Your task to perform on an android device: add a contact in the contacts app Image 0: 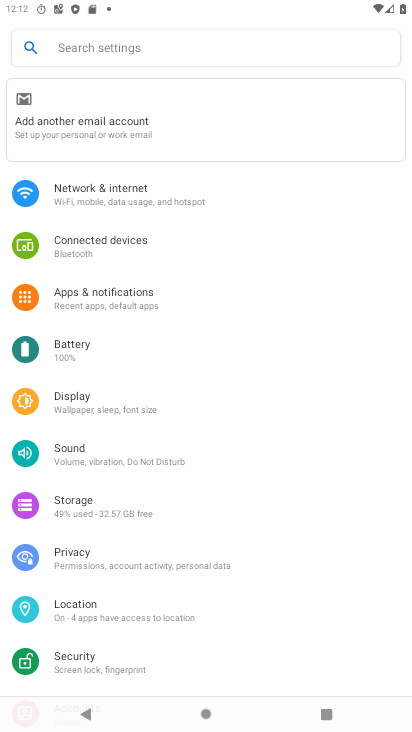
Step 0: press home button
Your task to perform on an android device: add a contact in the contacts app Image 1: 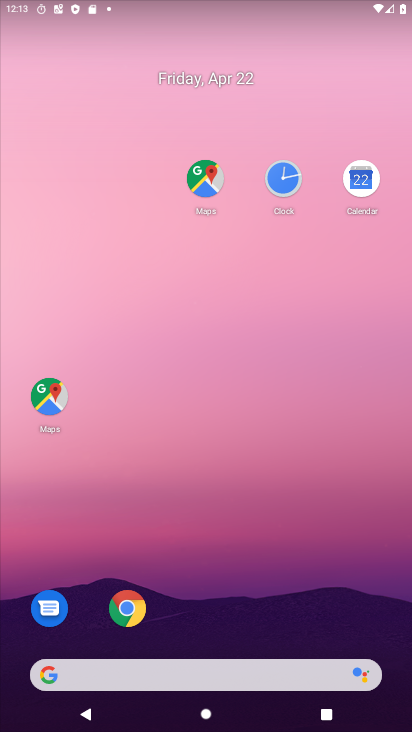
Step 1: drag from (273, 583) to (229, 44)
Your task to perform on an android device: add a contact in the contacts app Image 2: 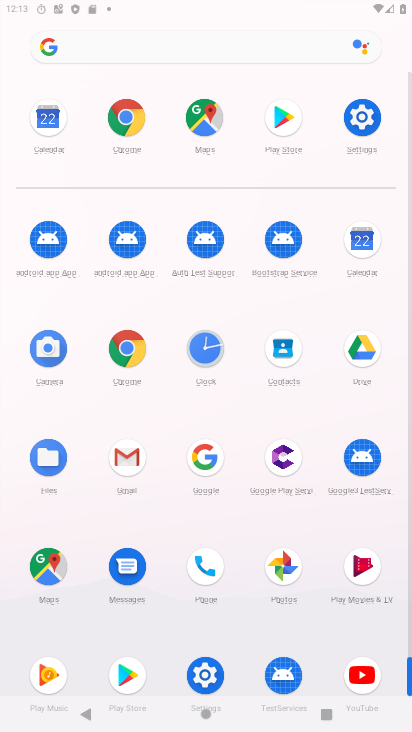
Step 2: drag from (225, 399) to (169, 48)
Your task to perform on an android device: add a contact in the contacts app Image 3: 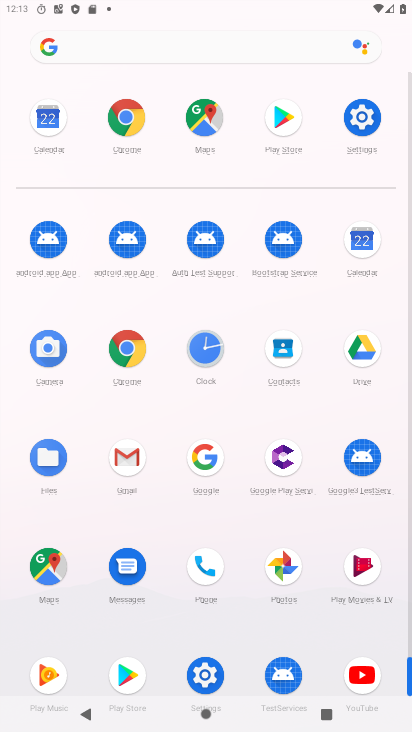
Step 3: click (282, 350)
Your task to perform on an android device: add a contact in the contacts app Image 4: 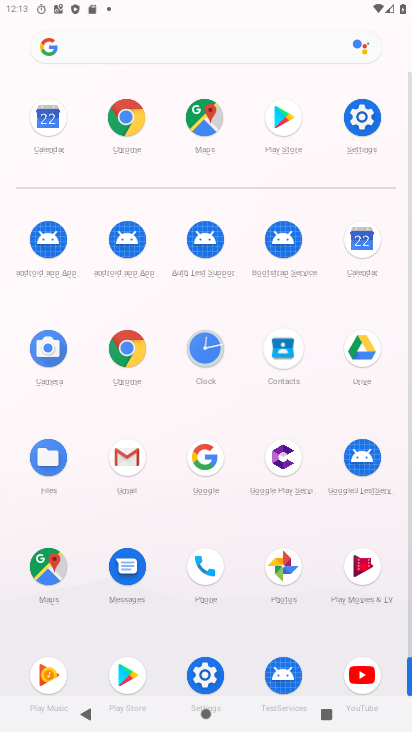
Step 4: click (284, 350)
Your task to perform on an android device: add a contact in the contacts app Image 5: 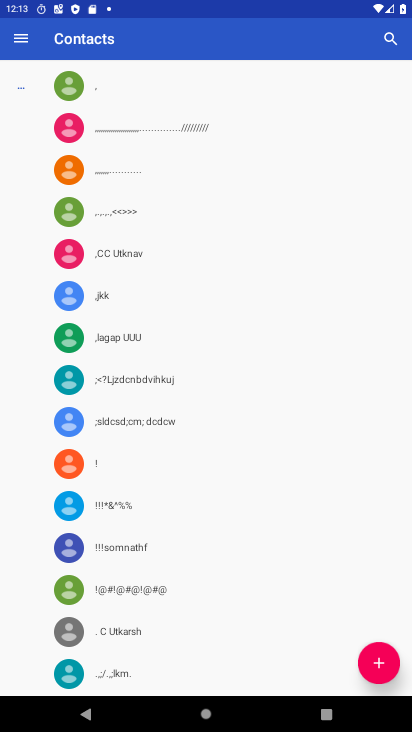
Step 5: drag from (232, 568) to (200, 98)
Your task to perform on an android device: add a contact in the contacts app Image 6: 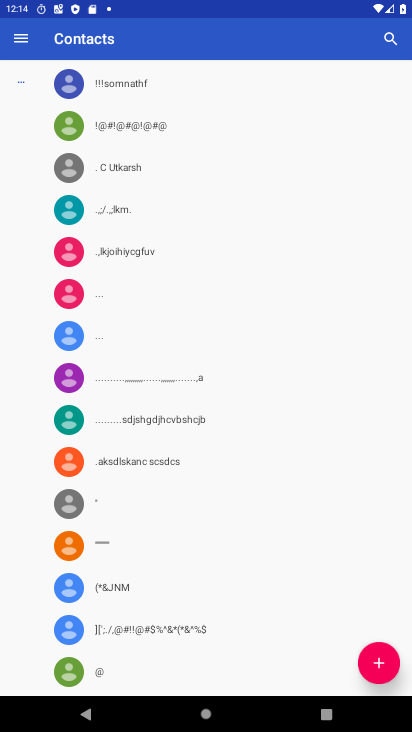
Step 6: click (383, 656)
Your task to perform on an android device: add a contact in the contacts app Image 7: 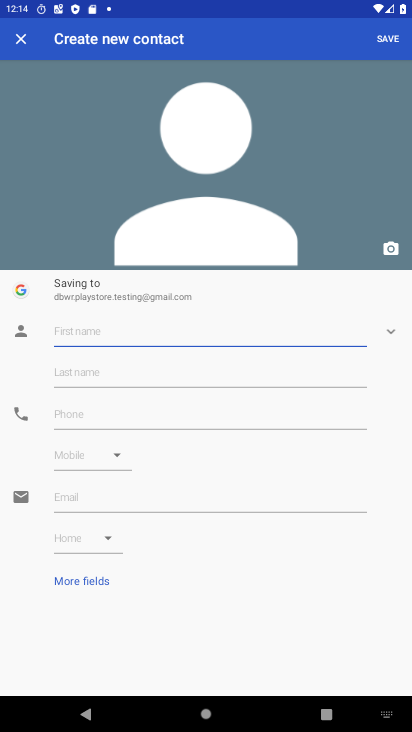
Step 7: type "mannn"
Your task to perform on an android device: add a contact in the contacts app Image 8: 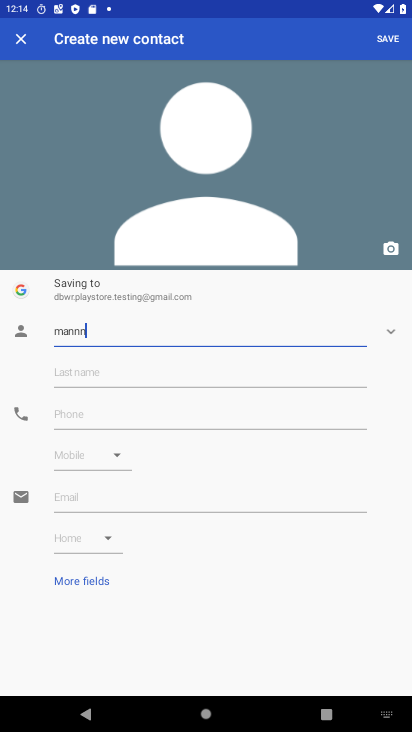
Step 8: click (80, 414)
Your task to perform on an android device: add a contact in the contacts app Image 9: 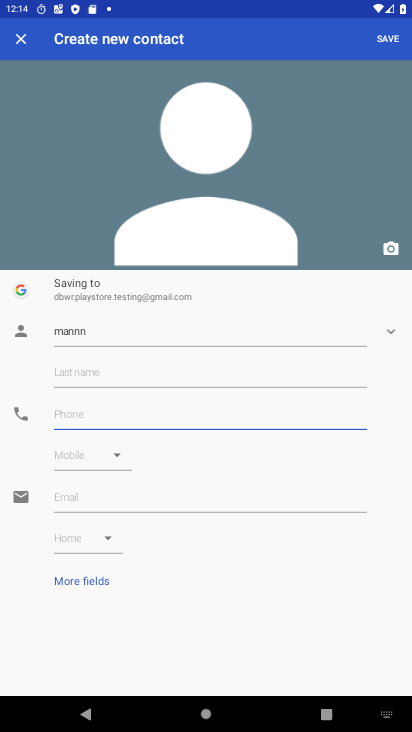
Step 9: click (80, 414)
Your task to perform on an android device: add a contact in the contacts app Image 10: 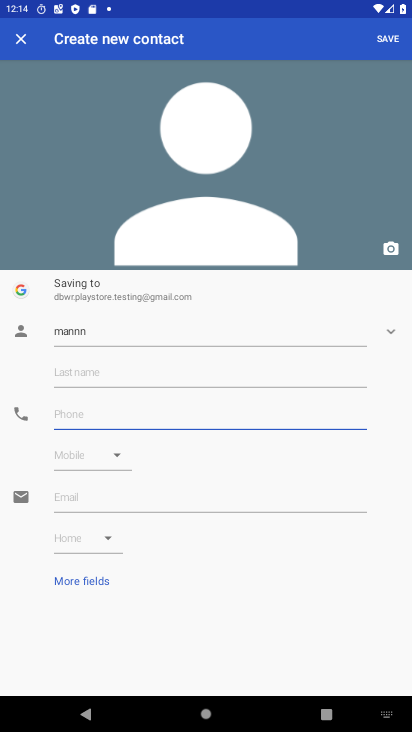
Step 10: type "9878445623"
Your task to perform on an android device: add a contact in the contacts app Image 11: 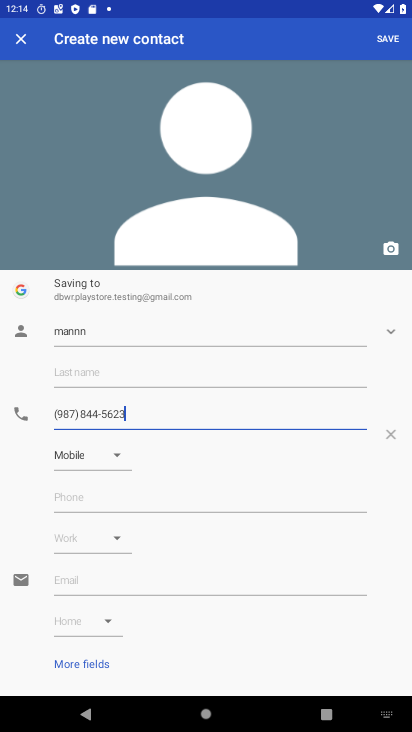
Step 11: click (393, 38)
Your task to perform on an android device: add a contact in the contacts app Image 12: 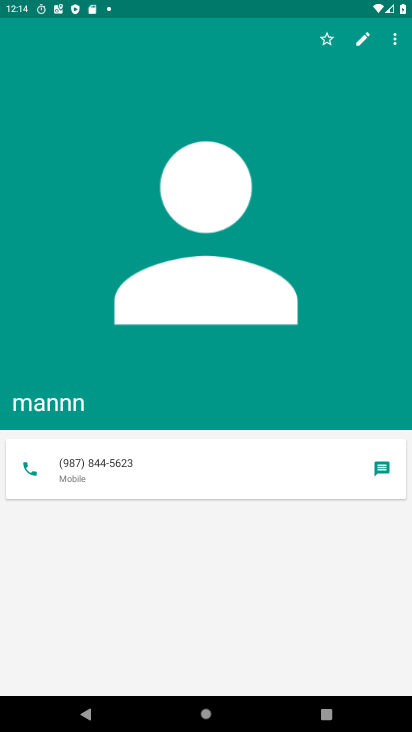
Step 12: task complete